Your task to perform on an android device: empty trash in the gmail app Image 0: 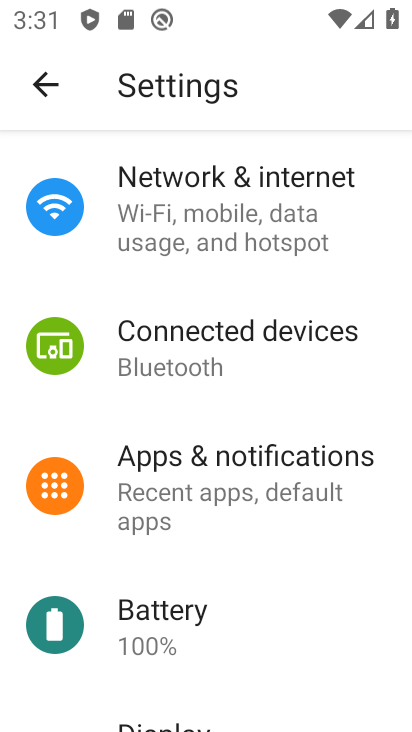
Step 0: press back button
Your task to perform on an android device: empty trash in the gmail app Image 1: 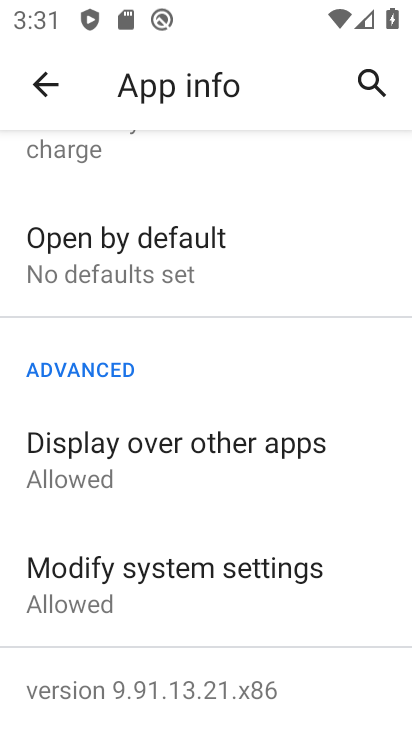
Step 1: press home button
Your task to perform on an android device: empty trash in the gmail app Image 2: 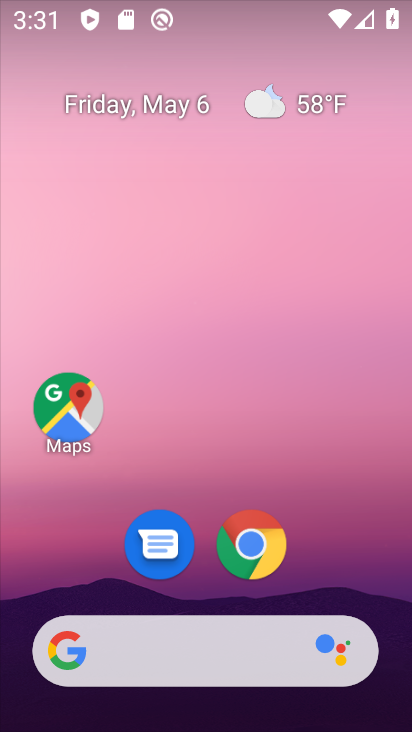
Step 2: drag from (55, 626) to (251, 78)
Your task to perform on an android device: empty trash in the gmail app Image 3: 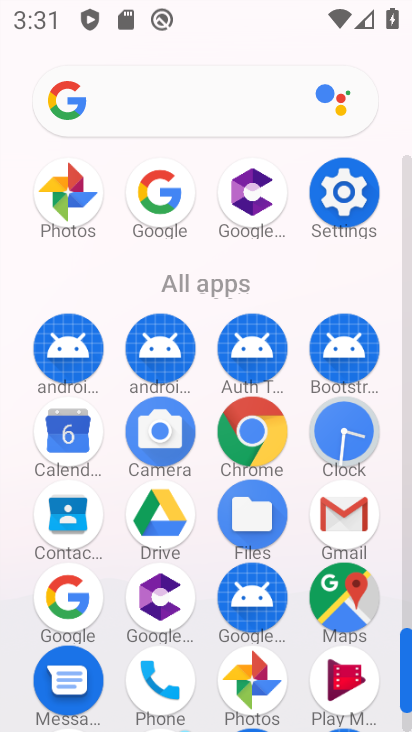
Step 3: click (356, 527)
Your task to perform on an android device: empty trash in the gmail app Image 4: 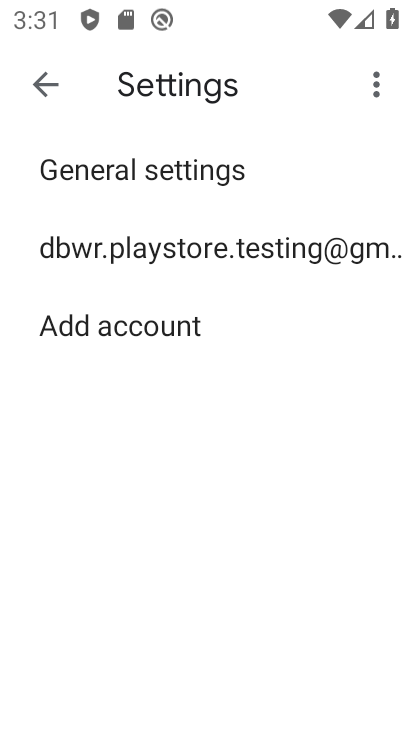
Step 4: click (60, 83)
Your task to perform on an android device: empty trash in the gmail app Image 5: 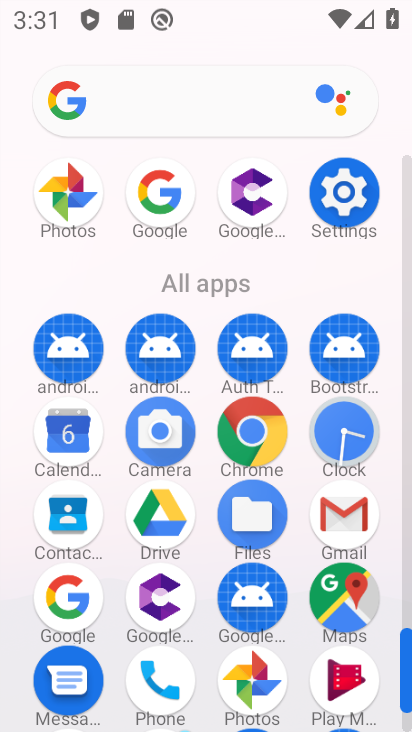
Step 5: click (358, 517)
Your task to perform on an android device: empty trash in the gmail app Image 6: 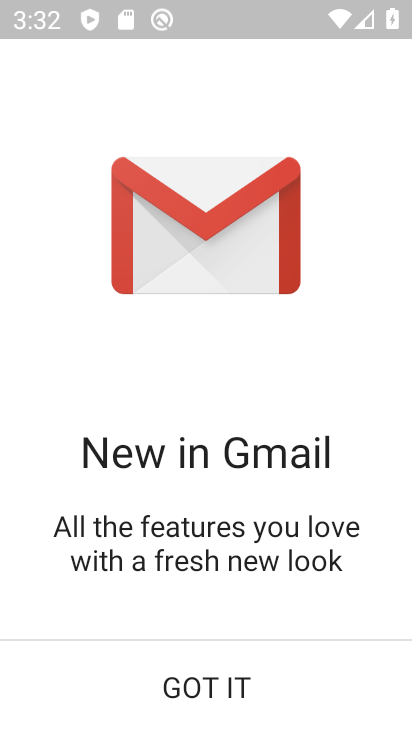
Step 6: click (196, 719)
Your task to perform on an android device: empty trash in the gmail app Image 7: 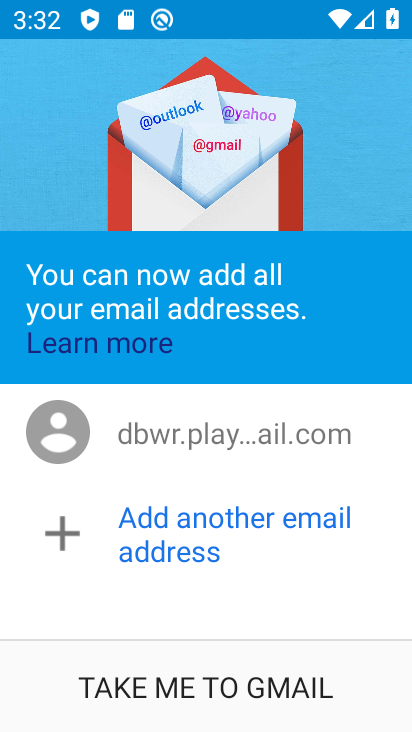
Step 7: click (240, 684)
Your task to perform on an android device: empty trash in the gmail app Image 8: 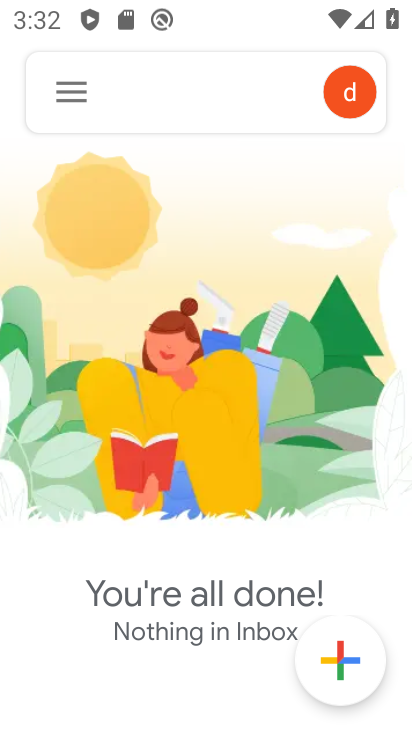
Step 8: click (65, 104)
Your task to perform on an android device: empty trash in the gmail app Image 9: 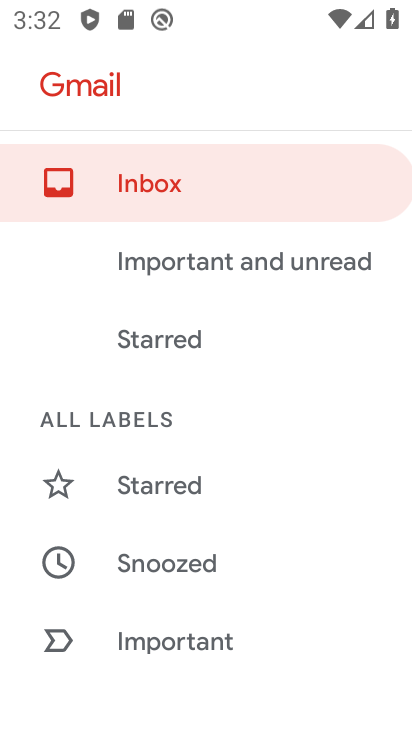
Step 9: drag from (142, 625) to (313, 171)
Your task to perform on an android device: empty trash in the gmail app Image 10: 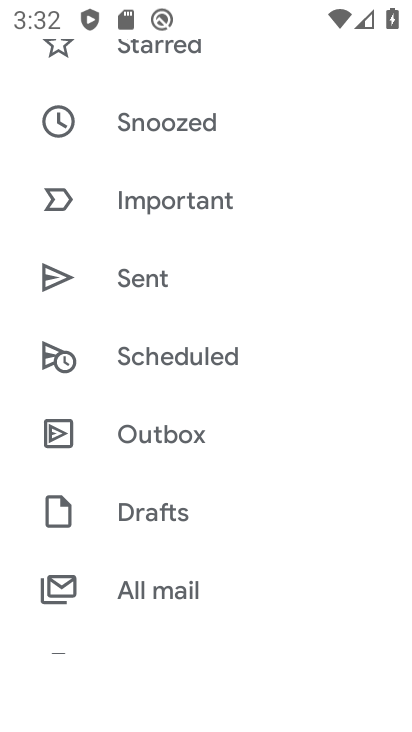
Step 10: drag from (160, 555) to (294, 248)
Your task to perform on an android device: empty trash in the gmail app Image 11: 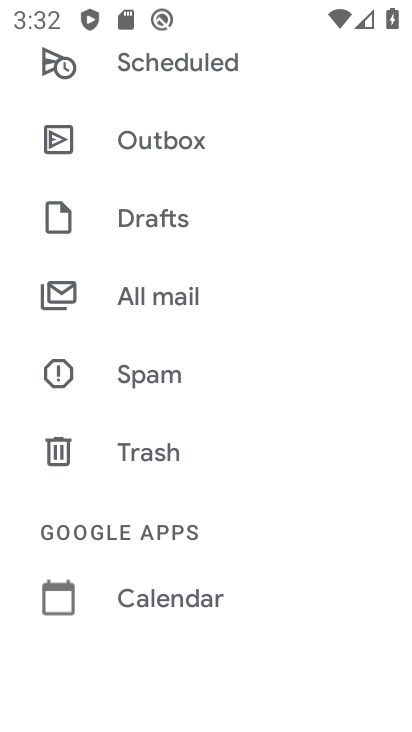
Step 11: click (160, 453)
Your task to perform on an android device: empty trash in the gmail app Image 12: 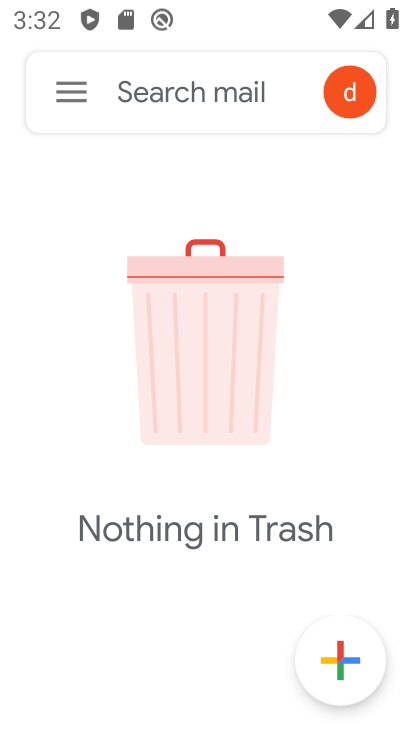
Step 12: task complete